Your task to perform on an android device: Open Yahoo.com Image 0: 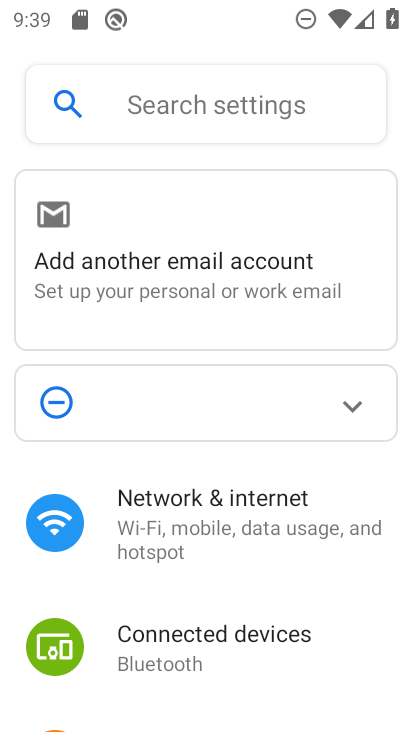
Step 0: press home button
Your task to perform on an android device: Open Yahoo.com Image 1: 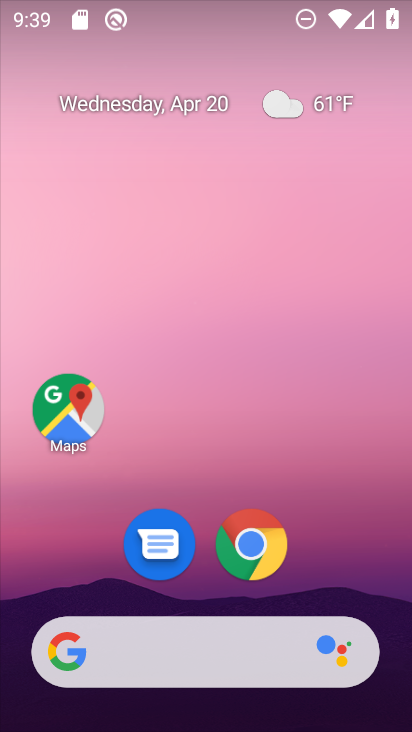
Step 1: click (261, 537)
Your task to perform on an android device: Open Yahoo.com Image 2: 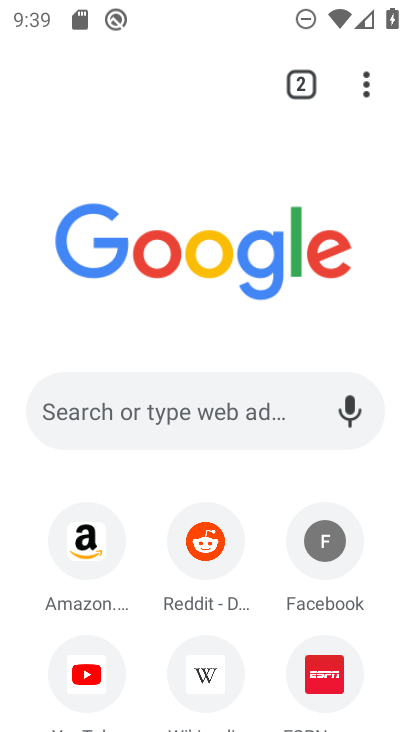
Step 2: drag from (219, 305) to (213, 159)
Your task to perform on an android device: Open Yahoo.com Image 3: 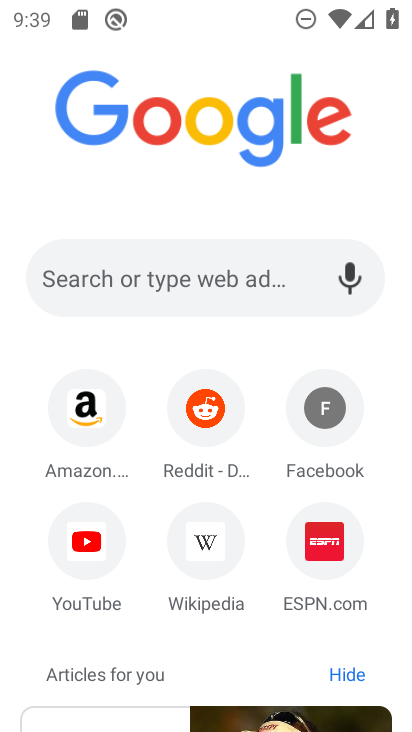
Step 3: click (188, 255)
Your task to perform on an android device: Open Yahoo.com Image 4: 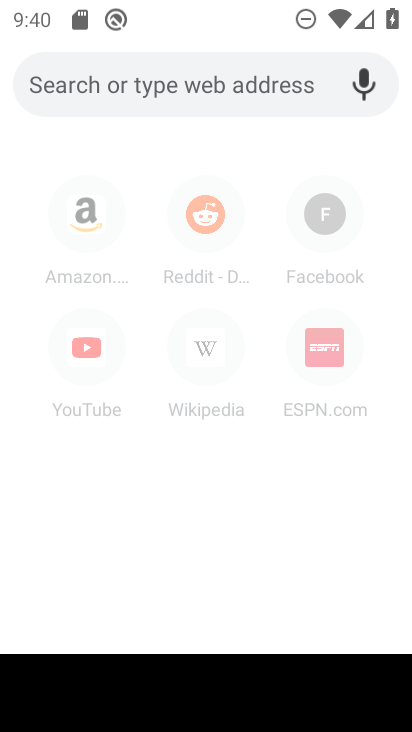
Step 4: type "yahoo.com"
Your task to perform on an android device: Open Yahoo.com Image 5: 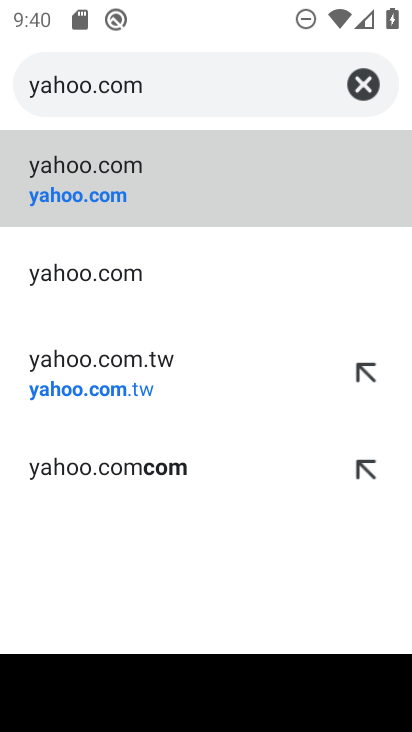
Step 5: click (211, 188)
Your task to perform on an android device: Open Yahoo.com Image 6: 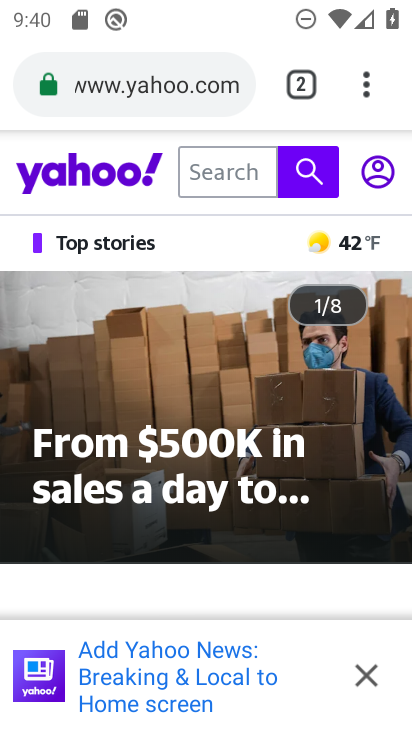
Step 6: task complete